Your task to perform on an android device: turn on showing notifications on the lock screen Image 0: 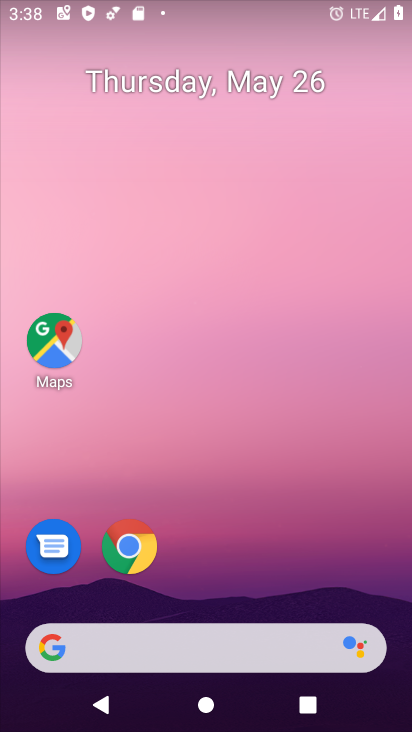
Step 0: drag from (234, 552) to (277, 108)
Your task to perform on an android device: turn on showing notifications on the lock screen Image 1: 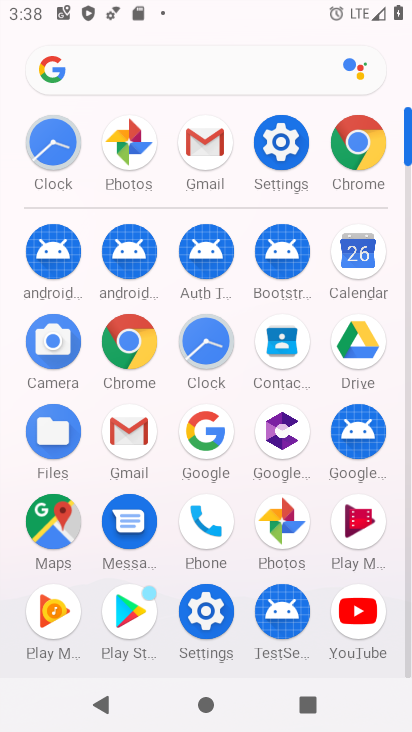
Step 1: click (289, 139)
Your task to perform on an android device: turn on showing notifications on the lock screen Image 2: 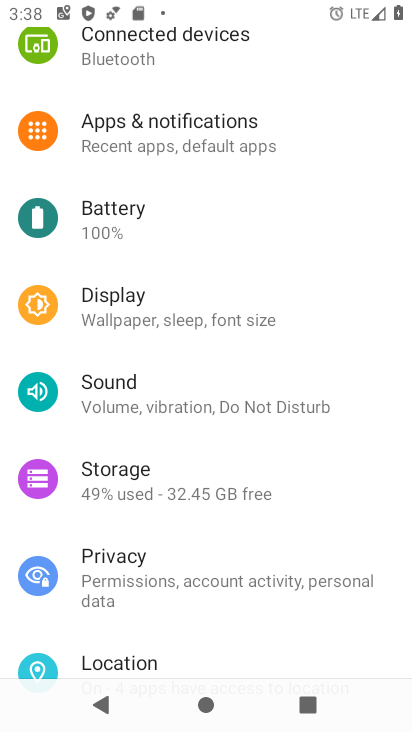
Step 2: drag from (256, 155) to (250, 308)
Your task to perform on an android device: turn on showing notifications on the lock screen Image 3: 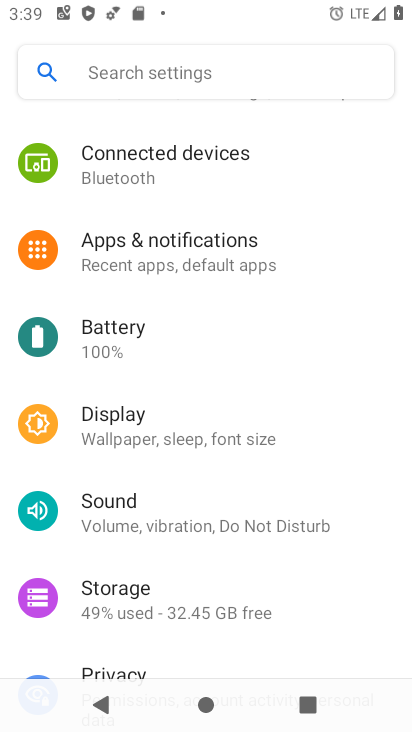
Step 3: click (163, 237)
Your task to perform on an android device: turn on showing notifications on the lock screen Image 4: 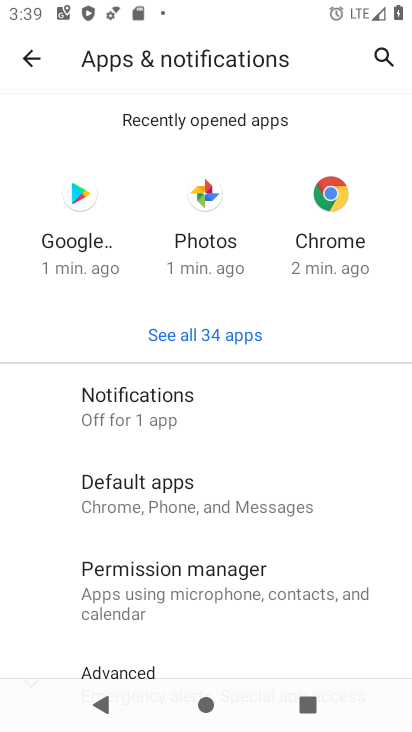
Step 4: click (154, 393)
Your task to perform on an android device: turn on showing notifications on the lock screen Image 5: 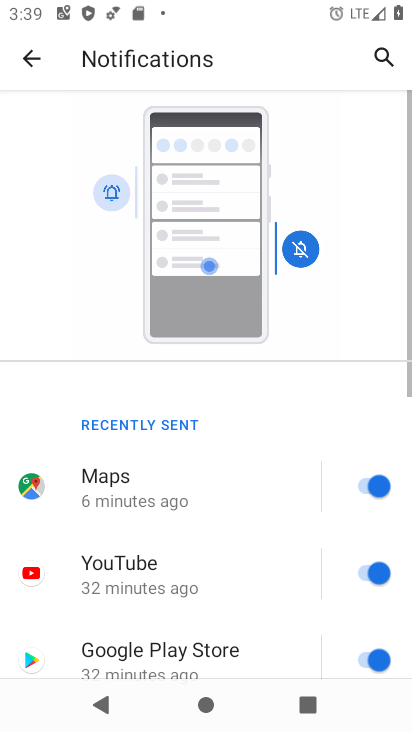
Step 5: drag from (188, 618) to (273, 57)
Your task to perform on an android device: turn on showing notifications on the lock screen Image 6: 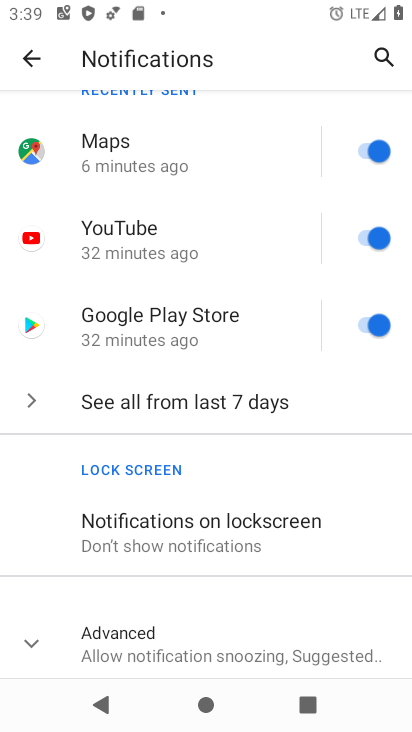
Step 6: click (123, 519)
Your task to perform on an android device: turn on showing notifications on the lock screen Image 7: 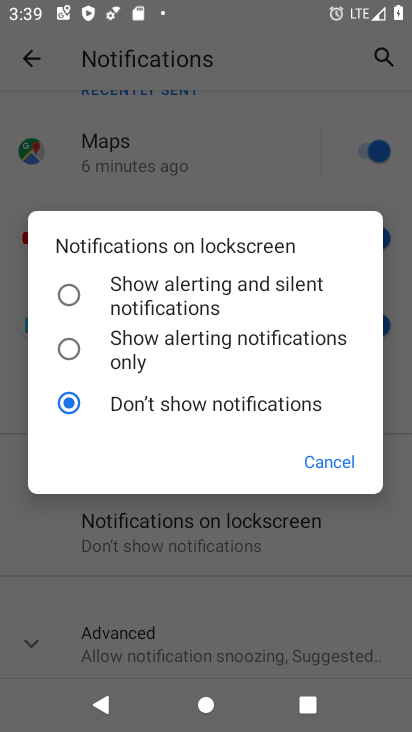
Step 7: click (71, 290)
Your task to perform on an android device: turn on showing notifications on the lock screen Image 8: 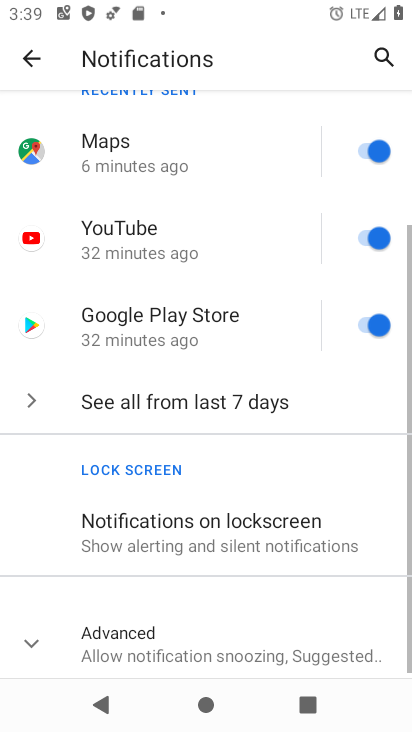
Step 8: task complete